Your task to perform on an android device: Open calendar and show me the second week of next month Image 0: 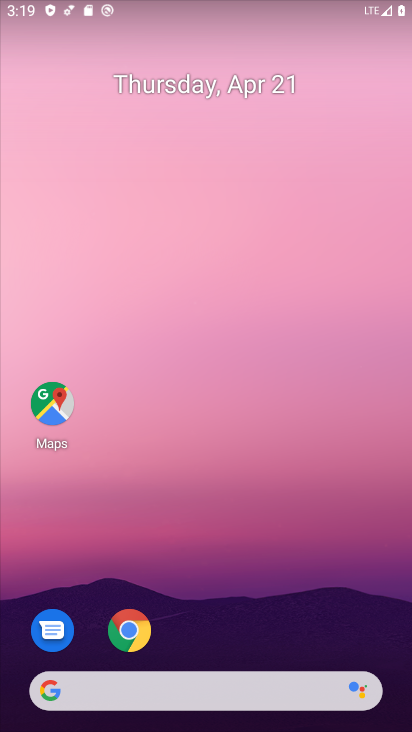
Step 0: drag from (213, 642) to (167, 277)
Your task to perform on an android device: Open calendar and show me the second week of next month Image 1: 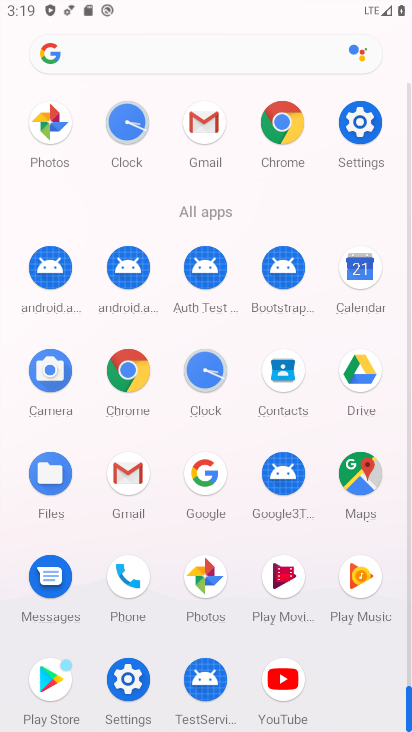
Step 1: drag from (255, 517) to (286, 405)
Your task to perform on an android device: Open calendar and show me the second week of next month Image 2: 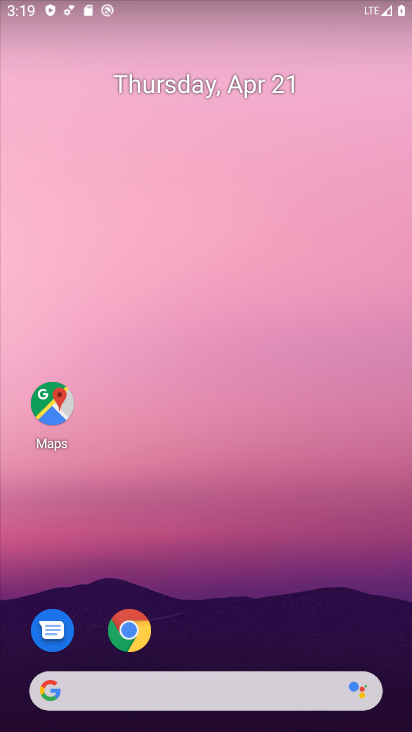
Step 2: drag from (253, 651) to (241, 291)
Your task to perform on an android device: Open calendar and show me the second week of next month Image 3: 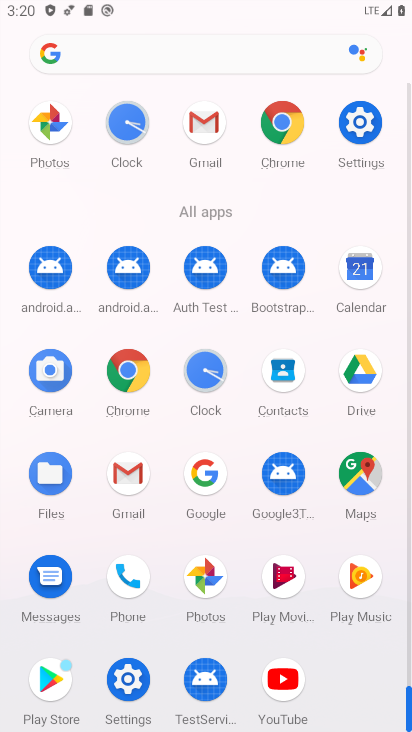
Step 3: click (373, 275)
Your task to perform on an android device: Open calendar and show me the second week of next month Image 4: 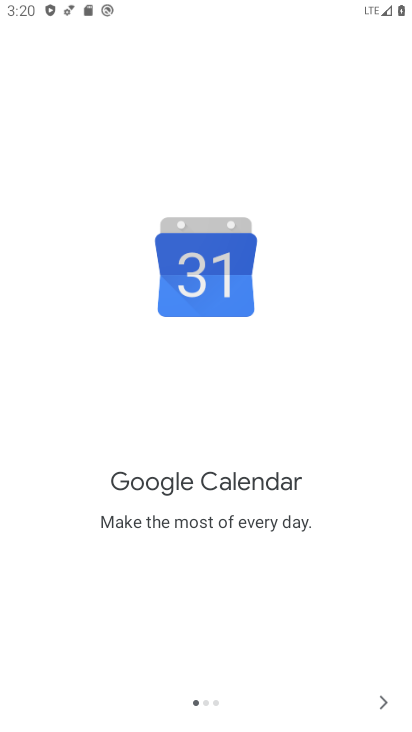
Step 4: click (381, 697)
Your task to perform on an android device: Open calendar and show me the second week of next month Image 5: 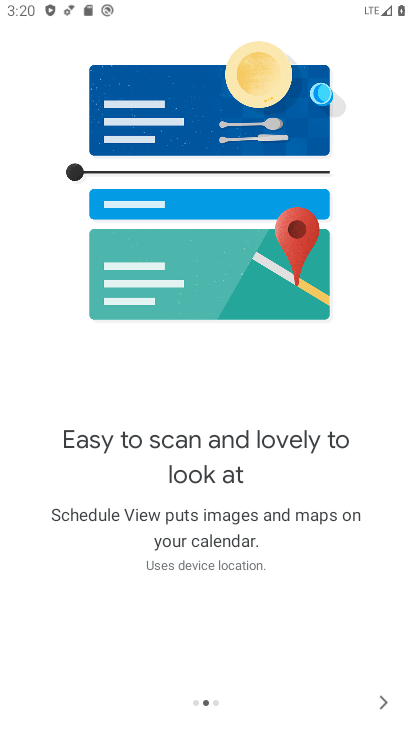
Step 5: click (381, 686)
Your task to perform on an android device: Open calendar and show me the second week of next month Image 6: 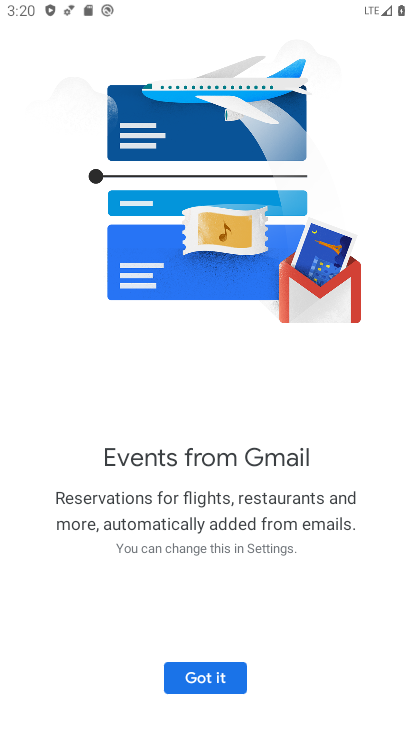
Step 6: click (203, 678)
Your task to perform on an android device: Open calendar and show me the second week of next month Image 7: 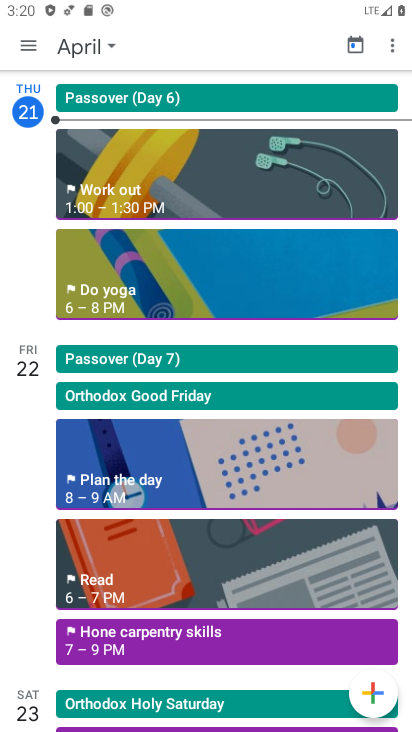
Step 7: click (97, 42)
Your task to perform on an android device: Open calendar and show me the second week of next month Image 8: 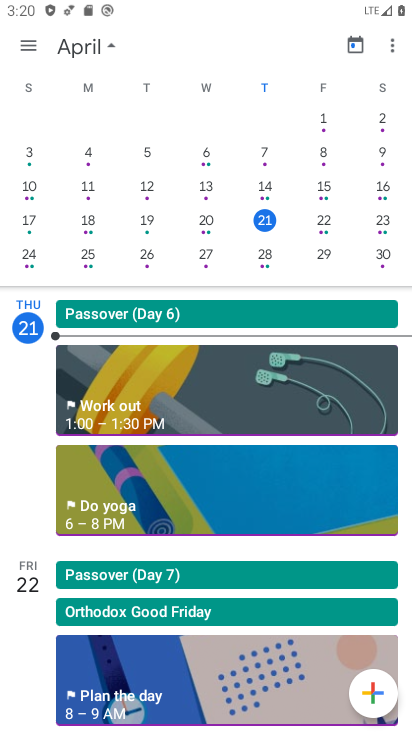
Step 8: click (111, 46)
Your task to perform on an android device: Open calendar and show me the second week of next month Image 9: 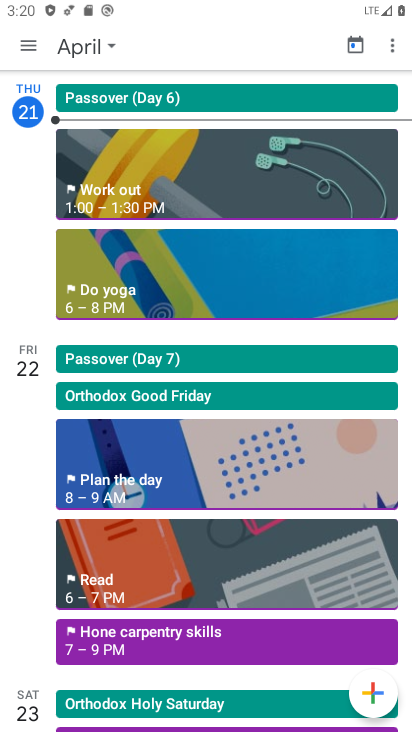
Step 9: click (111, 46)
Your task to perform on an android device: Open calendar and show me the second week of next month Image 10: 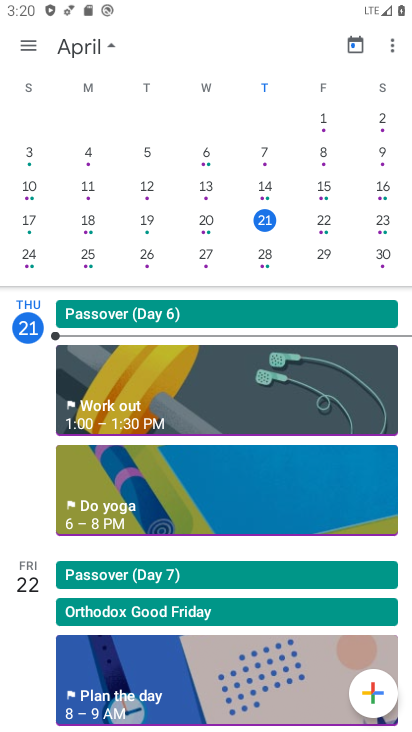
Step 10: click (387, 258)
Your task to perform on an android device: Open calendar and show me the second week of next month Image 11: 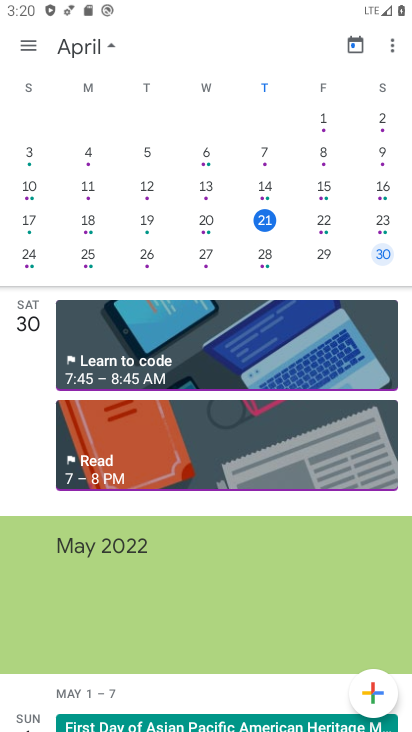
Step 11: click (321, 88)
Your task to perform on an android device: Open calendar and show me the second week of next month Image 12: 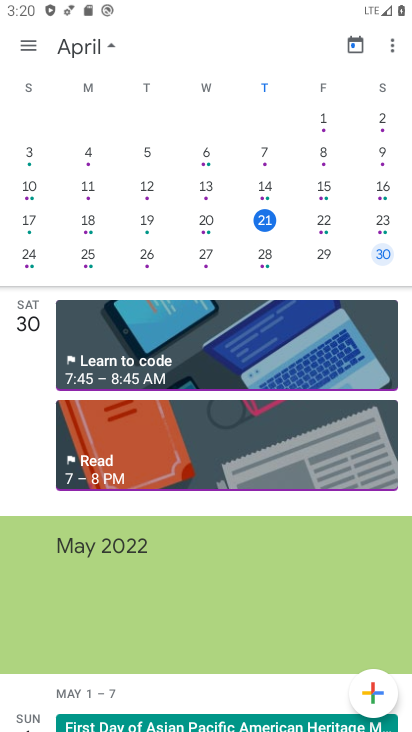
Step 12: click (390, 86)
Your task to perform on an android device: Open calendar and show me the second week of next month Image 13: 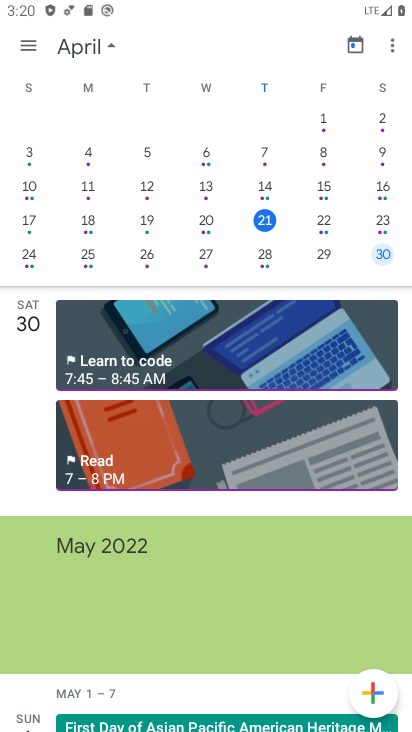
Step 13: click (230, 566)
Your task to perform on an android device: Open calendar and show me the second week of next month Image 14: 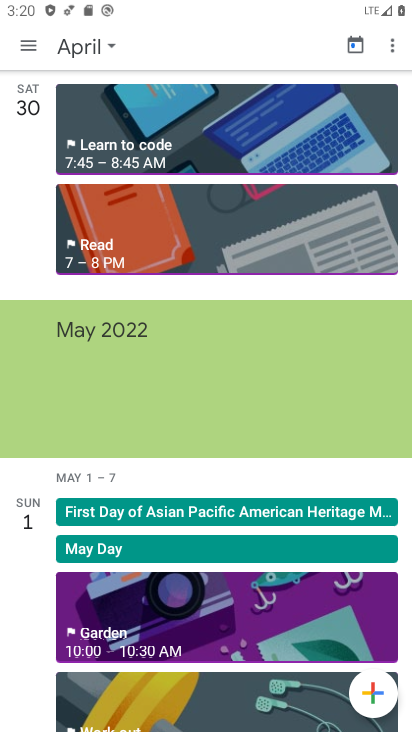
Step 14: task complete